Your task to perform on an android device: Open the play store Image 0: 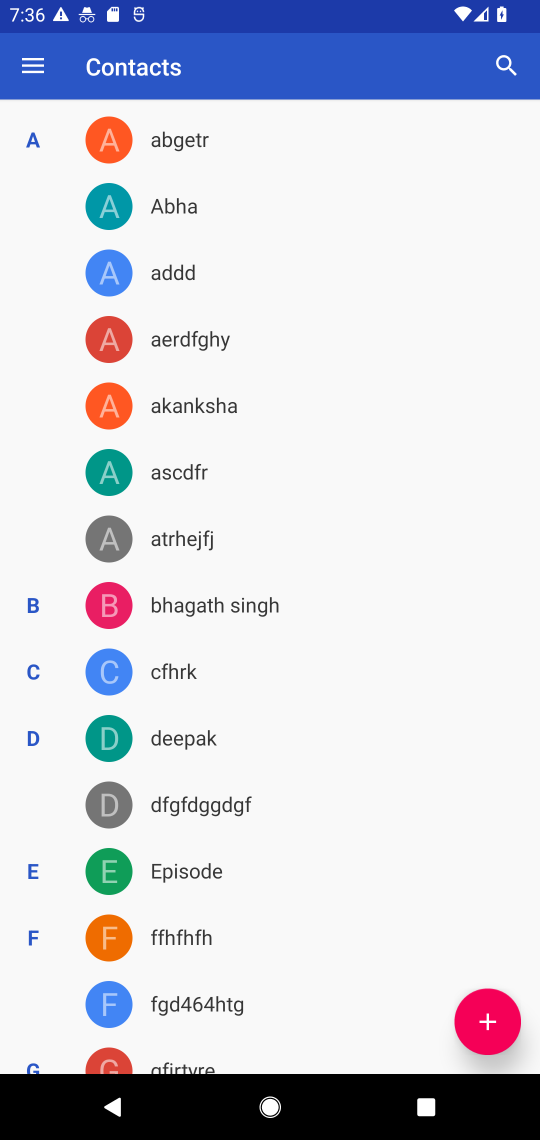
Step 0: press home button
Your task to perform on an android device: Open the play store Image 1: 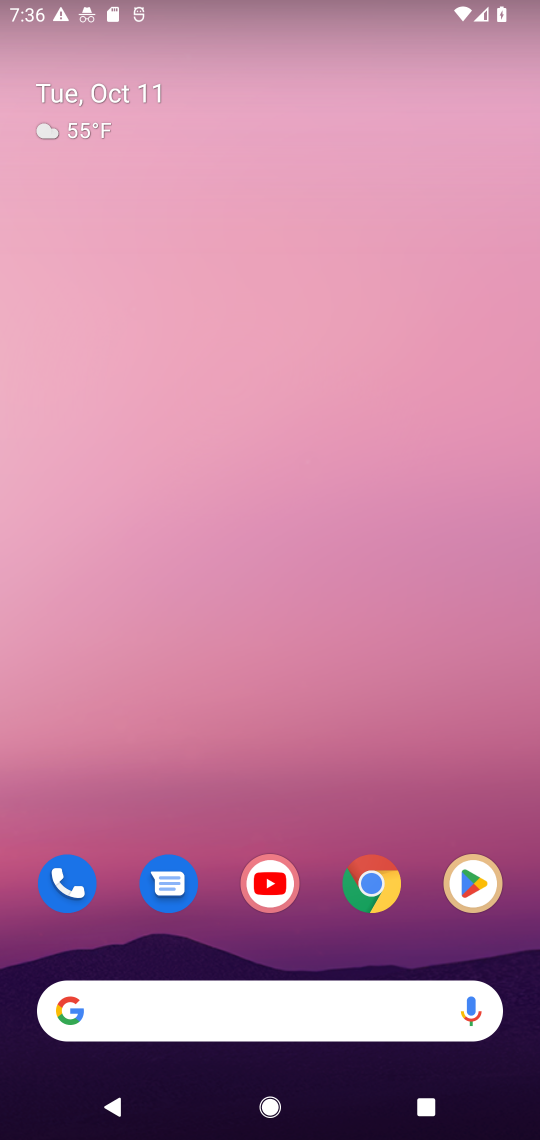
Step 1: drag from (330, 933) to (235, 1)
Your task to perform on an android device: Open the play store Image 2: 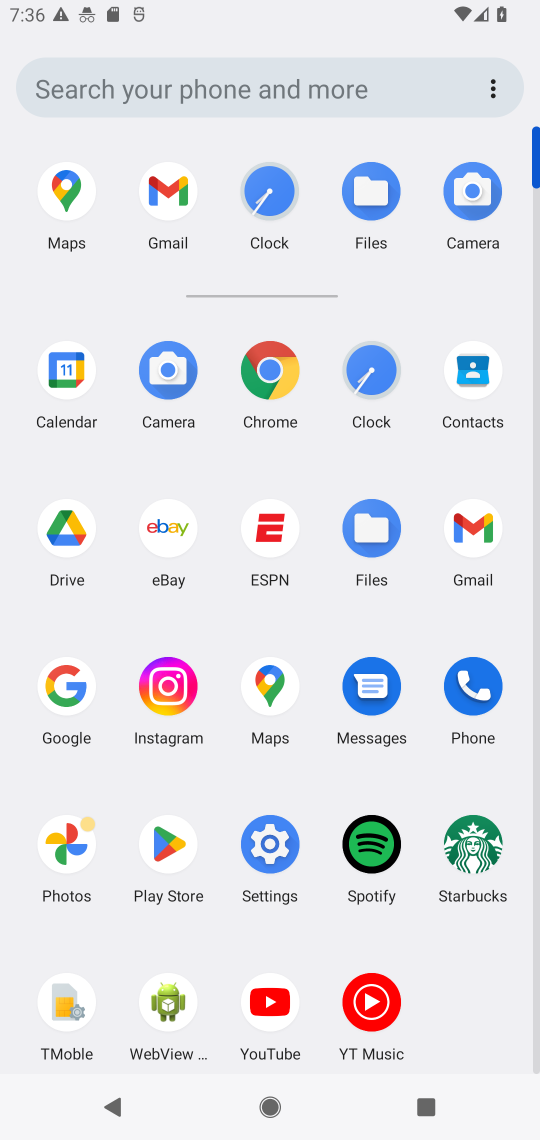
Step 2: click (174, 851)
Your task to perform on an android device: Open the play store Image 3: 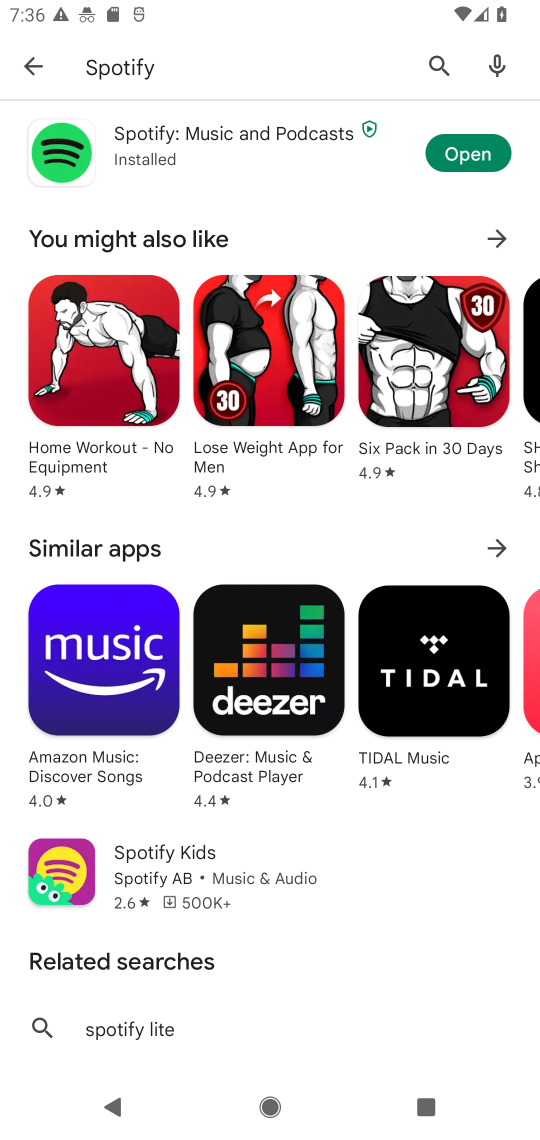
Step 3: click (328, 52)
Your task to perform on an android device: Open the play store Image 4: 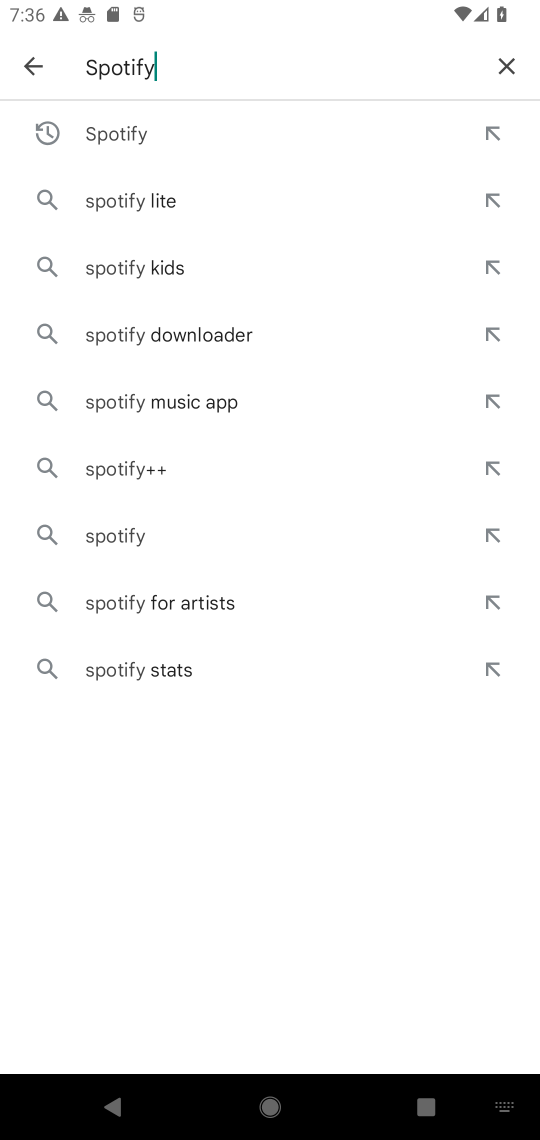
Step 4: click (506, 65)
Your task to perform on an android device: Open the play store Image 5: 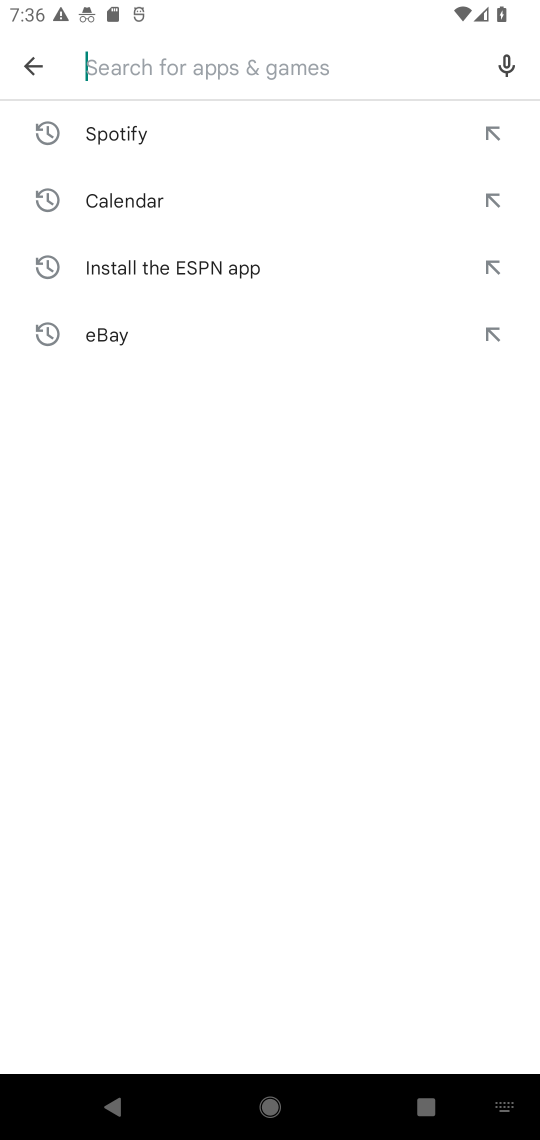
Step 5: click (41, 53)
Your task to perform on an android device: Open the play store Image 6: 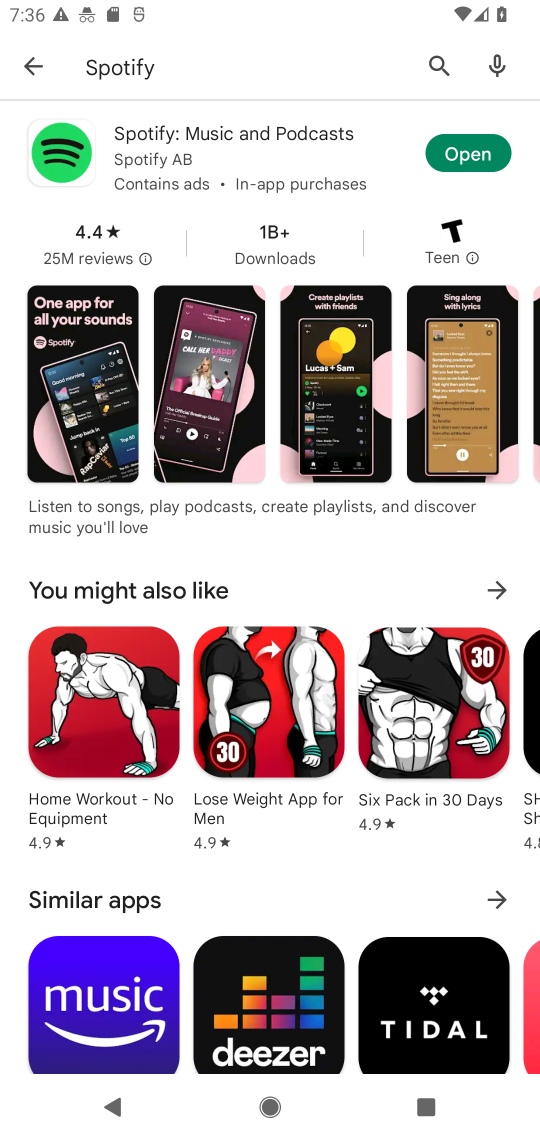
Step 6: task complete